Your task to perform on an android device: Open the calendar app, open the side menu, and click the "Day" option Image 0: 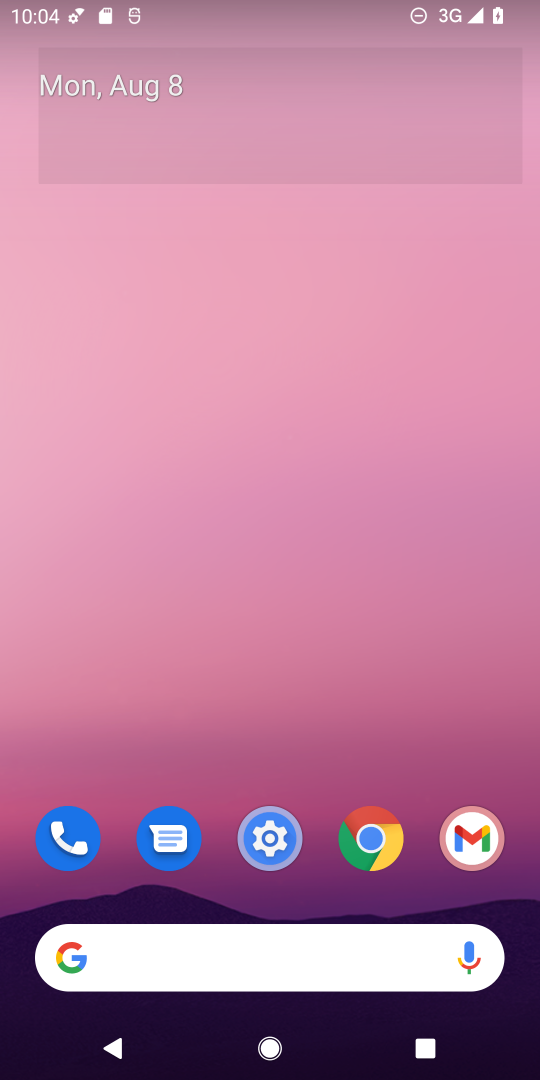
Step 0: press home button
Your task to perform on an android device: Open the calendar app, open the side menu, and click the "Day" option Image 1: 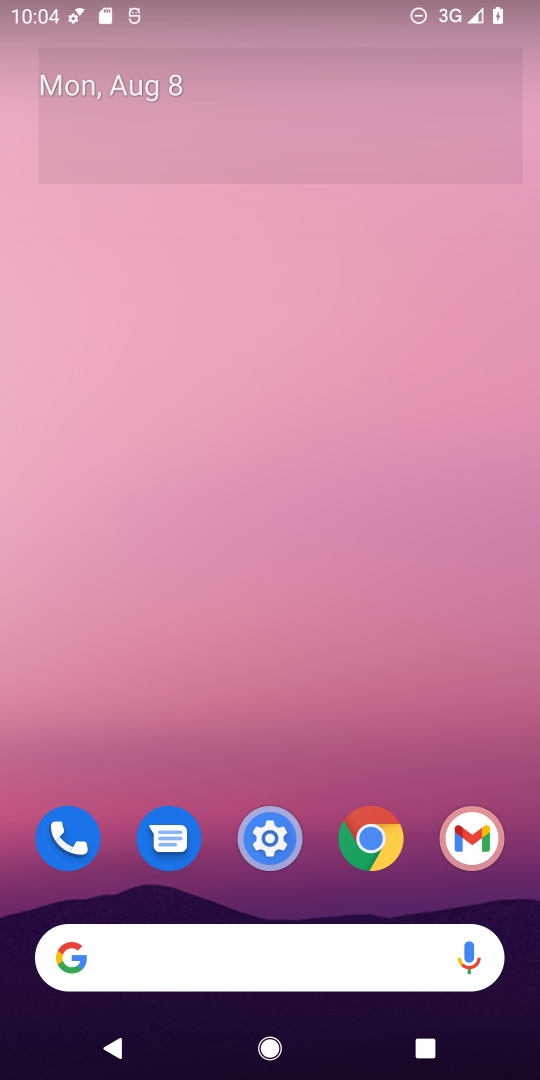
Step 1: drag from (340, 876) to (381, 147)
Your task to perform on an android device: Open the calendar app, open the side menu, and click the "Day" option Image 2: 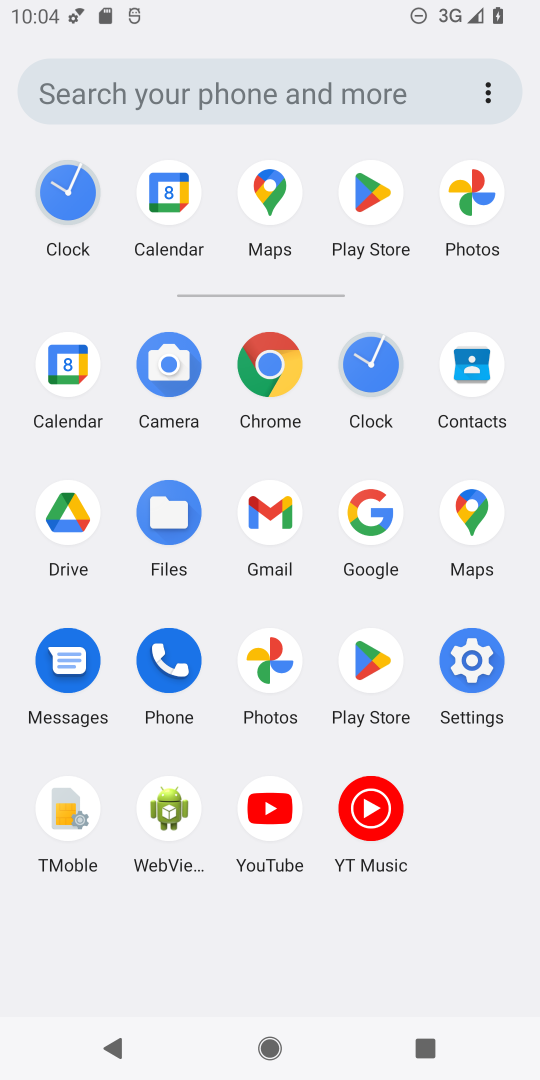
Step 2: click (173, 198)
Your task to perform on an android device: Open the calendar app, open the side menu, and click the "Day" option Image 3: 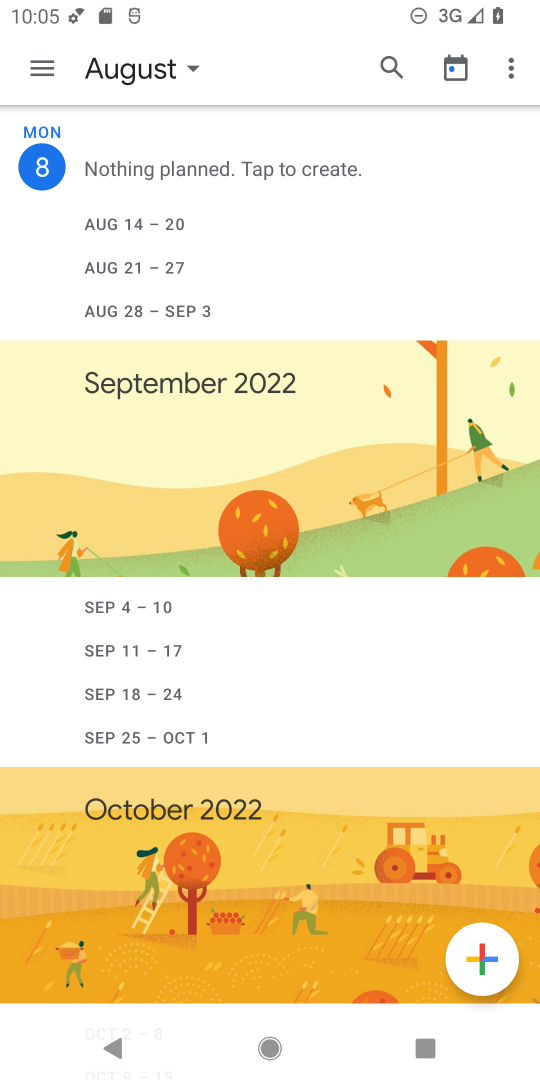
Step 3: click (64, 65)
Your task to perform on an android device: Open the calendar app, open the side menu, and click the "Day" option Image 4: 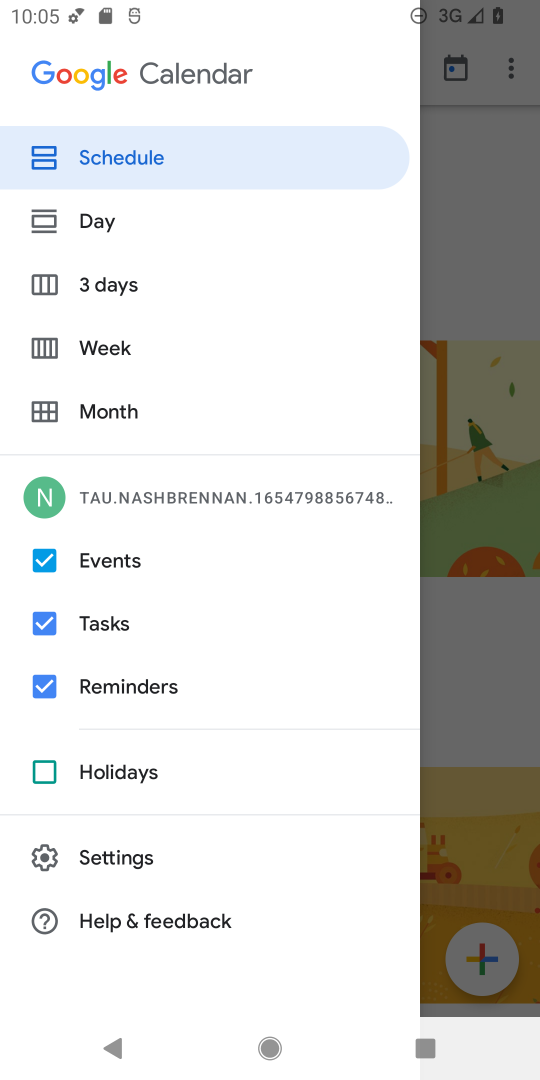
Step 4: click (89, 217)
Your task to perform on an android device: Open the calendar app, open the side menu, and click the "Day" option Image 5: 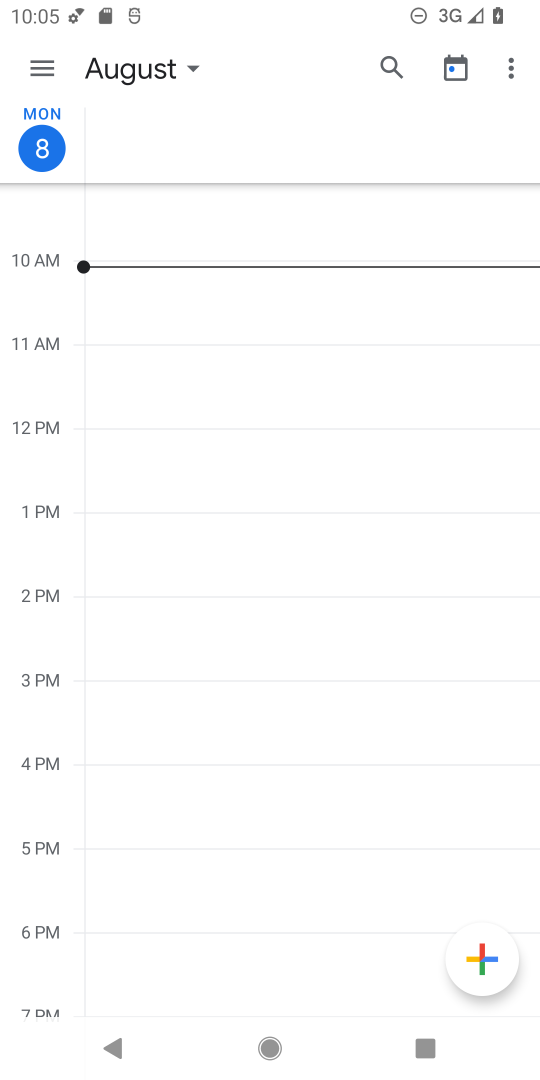
Step 5: task complete